Your task to perform on an android device: Go to location settings Image 0: 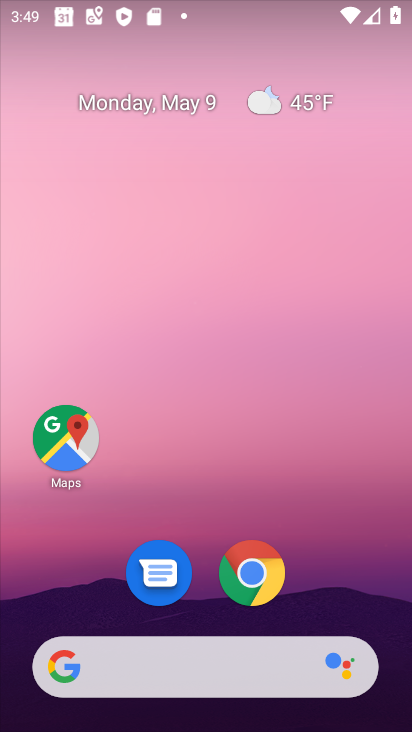
Step 0: drag from (369, 623) to (366, 17)
Your task to perform on an android device: Go to location settings Image 1: 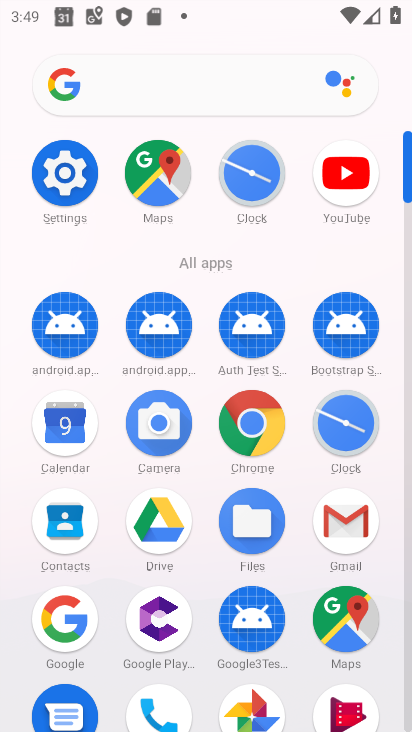
Step 1: click (69, 181)
Your task to perform on an android device: Go to location settings Image 2: 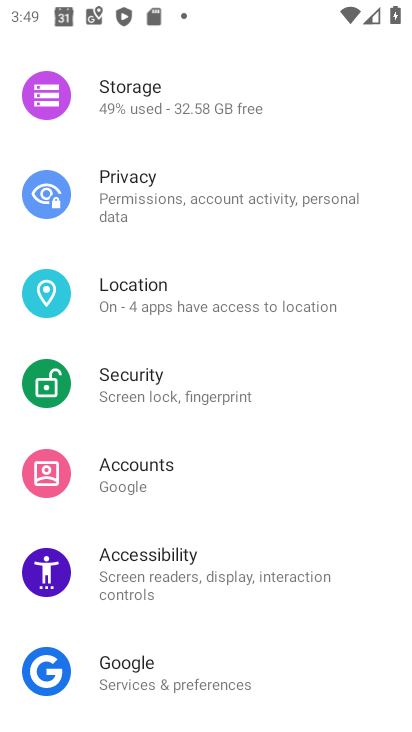
Step 2: click (159, 306)
Your task to perform on an android device: Go to location settings Image 3: 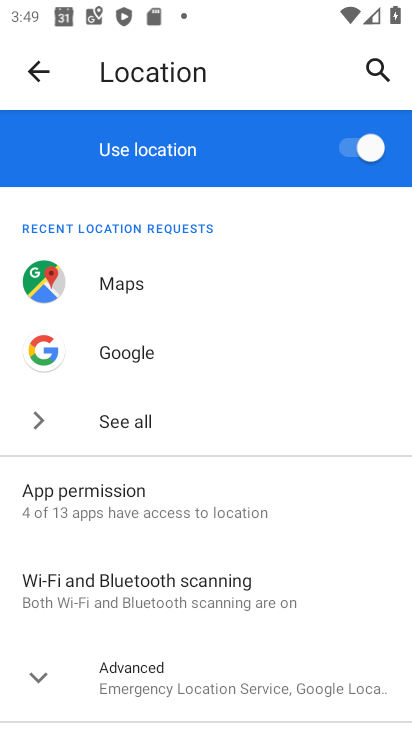
Step 3: task complete